Your task to perform on an android device: open a bookmark in the chrome app Image 0: 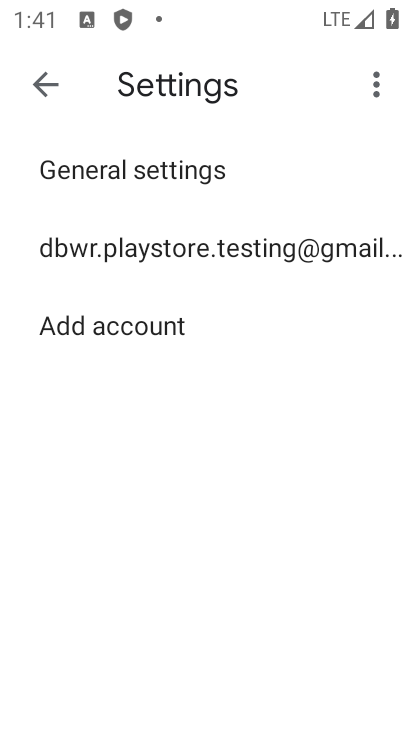
Step 0: press home button
Your task to perform on an android device: open a bookmark in the chrome app Image 1: 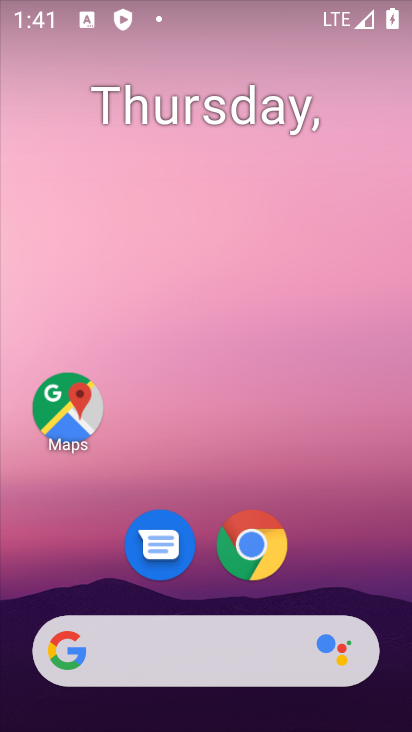
Step 1: drag from (252, 648) to (281, 104)
Your task to perform on an android device: open a bookmark in the chrome app Image 2: 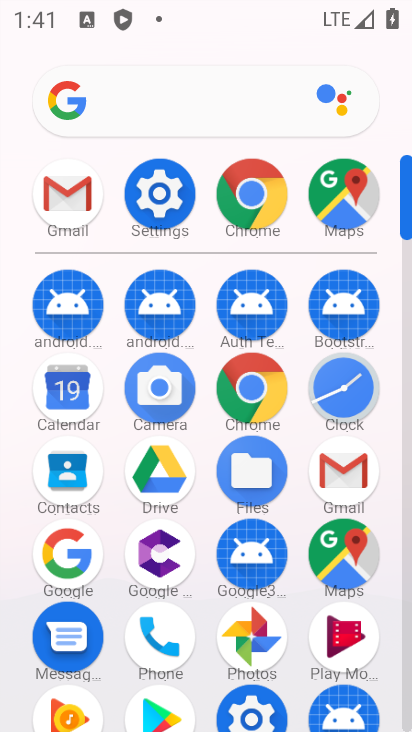
Step 2: click (247, 391)
Your task to perform on an android device: open a bookmark in the chrome app Image 3: 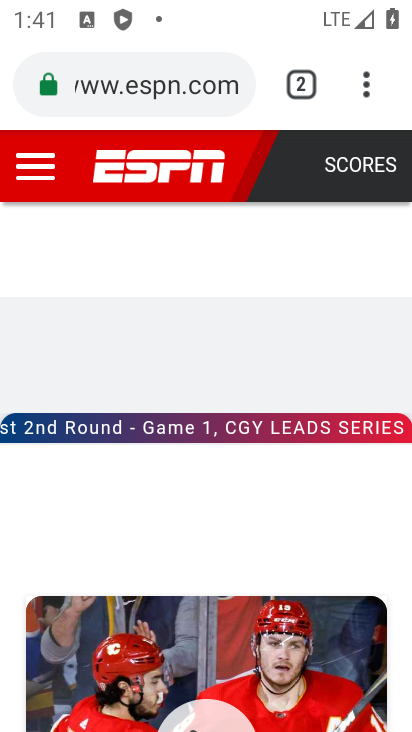
Step 3: click (364, 85)
Your task to perform on an android device: open a bookmark in the chrome app Image 4: 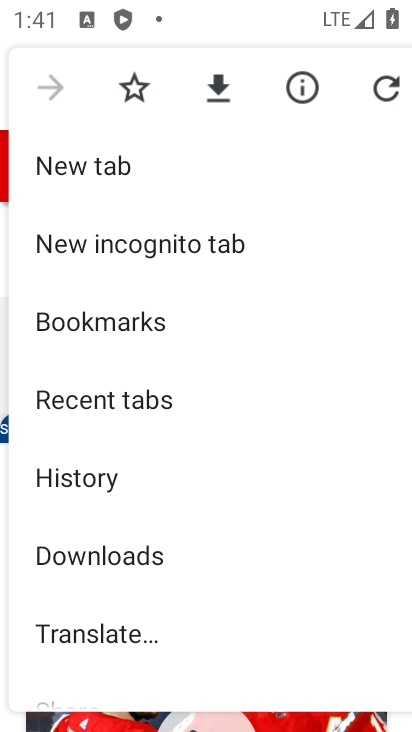
Step 4: click (167, 327)
Your task to perform on an android device: open a bookmark in the chrome app Image 5: 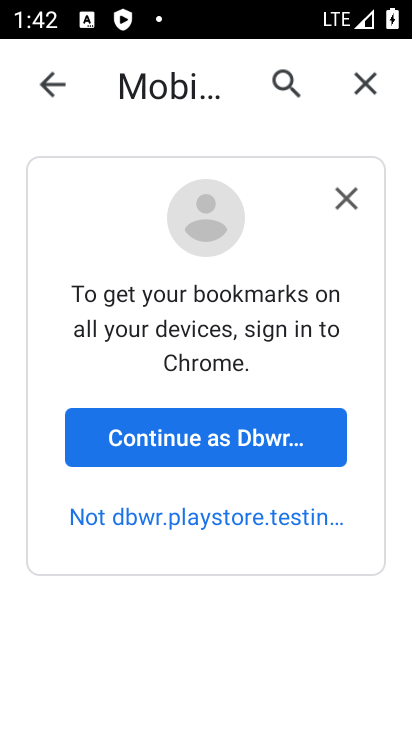
Step 5: task complete